Your task to perform on an android device: turn on wifi Image 0: 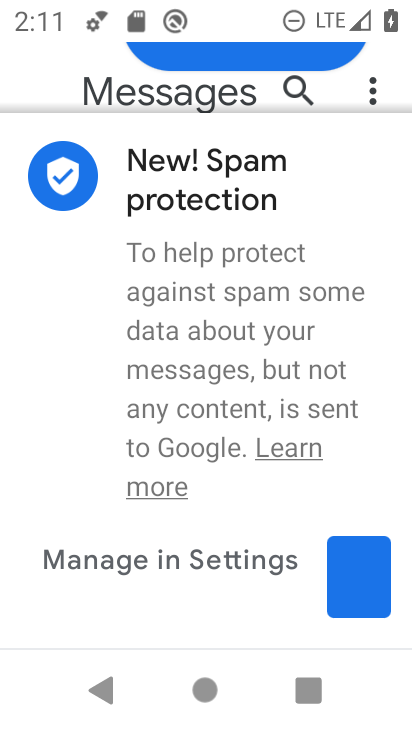
Step 0: press home button
Your task to perform on an android device: turn on wifi Image 1: 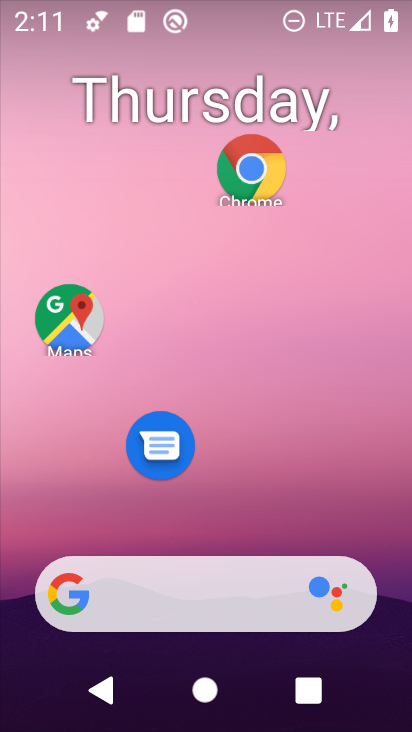
Step 1: drag from (230, 641) to (293, 173)
Your task to perform on an android device: turn on wifi Image 2: 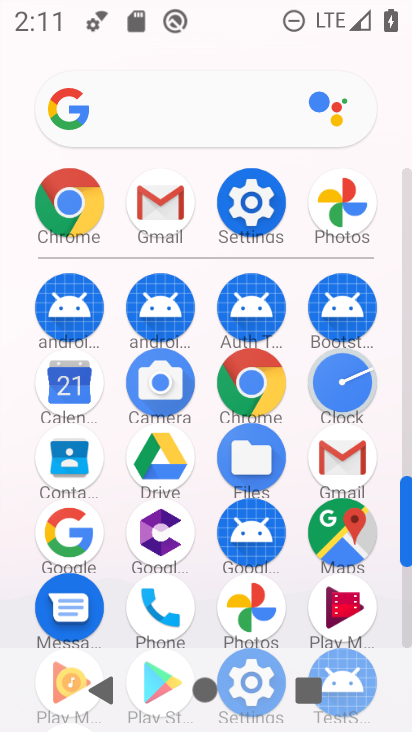
Step 2: click (234, 221)
Your task to perform on an android device: turn on wifi Image 3: 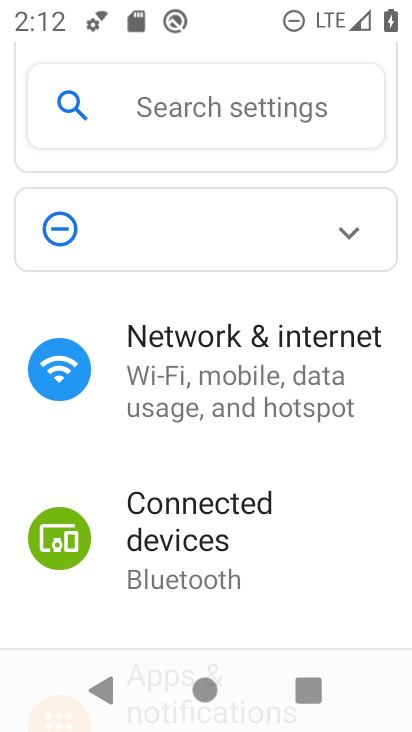
Step 3: click (221, 346)
Your task to perform on an android device: turn on wifi Image 4: 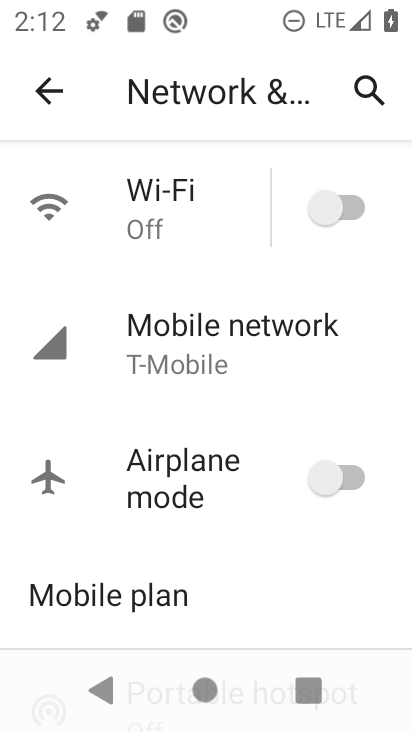
Step 4: click (234, 197)
Your task to perform on an android device: turn on wifi Image 5: 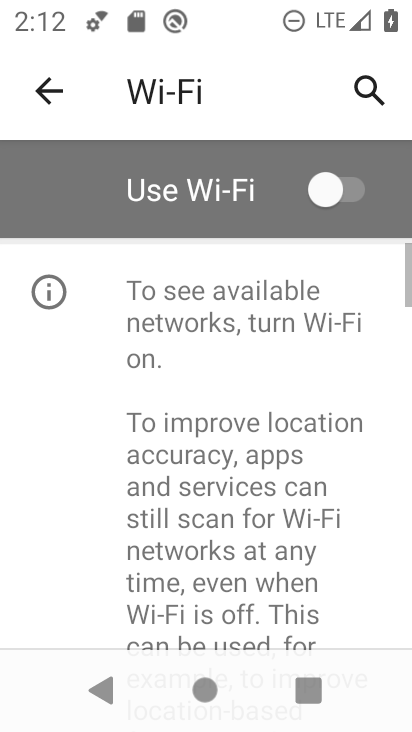
Step 5: click (326, 195)
Your task to perform on an android device: turn on wifi Image 6: 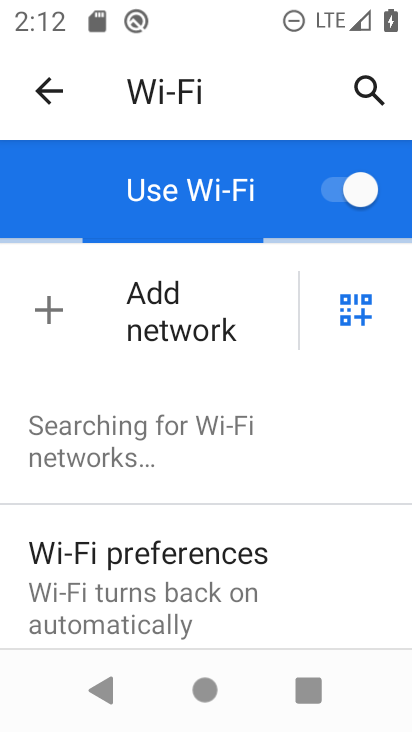
Step 6: task complete